Your task to perform on an android device: clear all cookies in the chrome app Image 0: 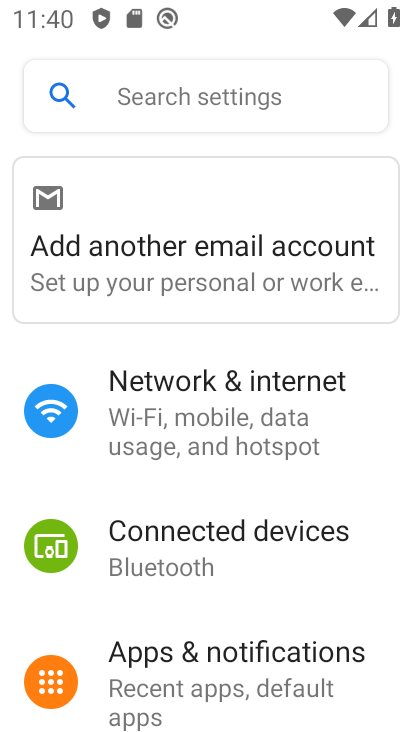
Step 0: press home button
Your task to perform on an android device: clear all cookies in the chrome app Image 1: 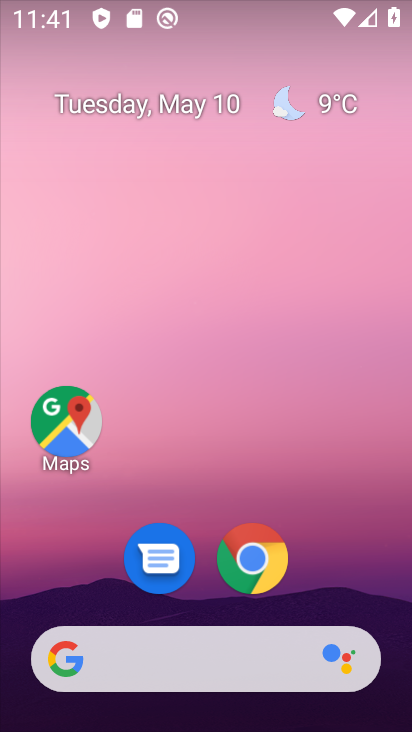
Step 1: drag from (375, 554) to (383, 150)
Your task to perform on an android device: clear all cookies in the chrome app Image 2: 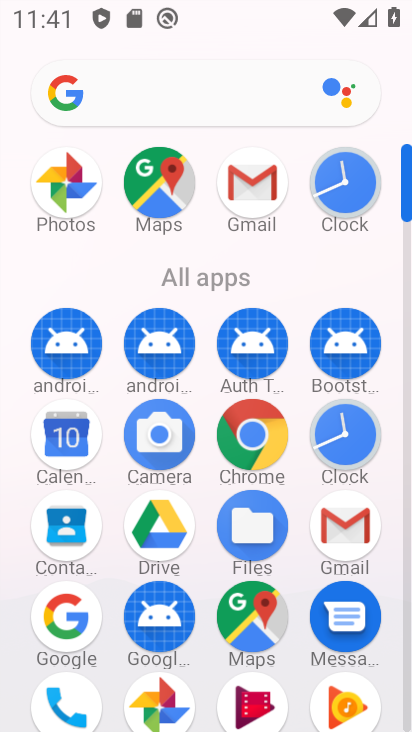
Step 2: click (246, 451)
Your task to perform on an android device: clear all cookies in the chrome app Image 3: 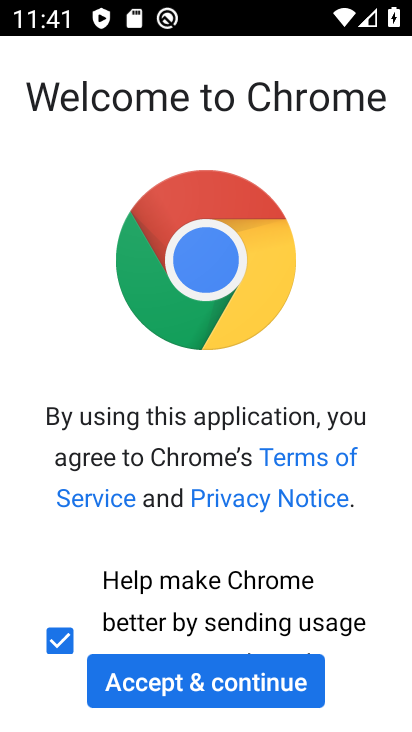
Step 3: click (210, 684)
Your task to perform on an android device: clear all cookies in the chrome app Image 4: 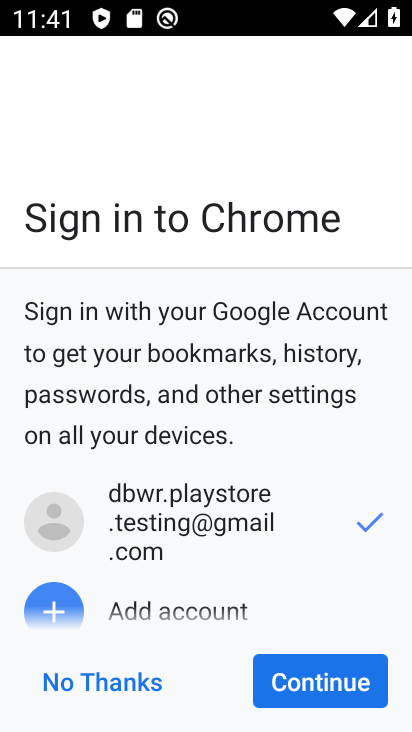
Step 4: click (296, 676)
Your task to perform on an android device: clear all cookies in the chrome app Image 5: 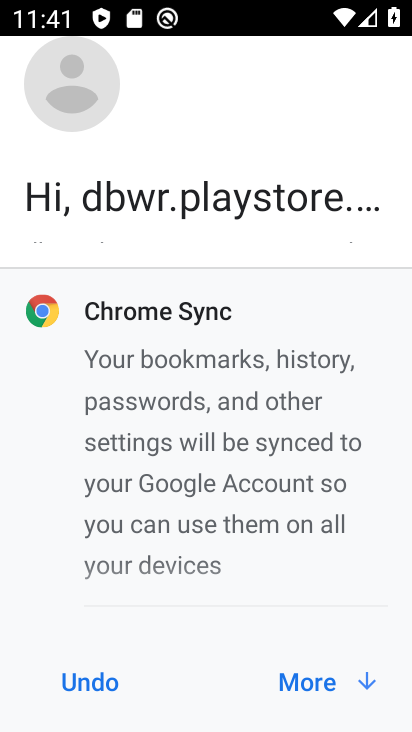
Step 5: click (292, 677)
Your task to perform on an android device: clear all cookies in the chrome app Image 6: 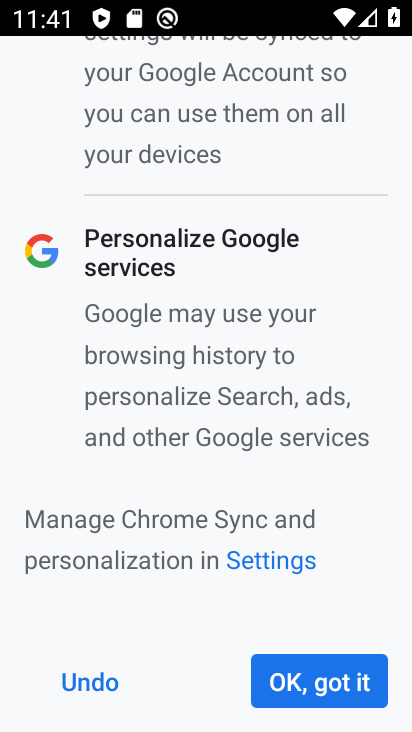
Step 6: click (292, 677)
Your task to perform on an android device: clear all cookies in the chrome app Image 7: 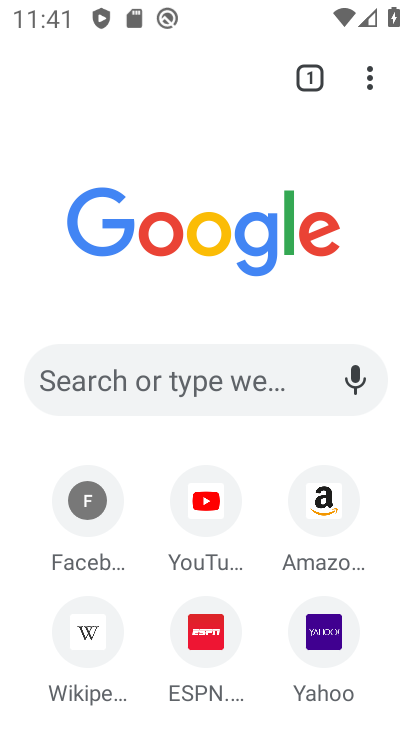
Step 7: task complete